Your task to perform on an android device: turn on the 12-hour format for clock Image 0: 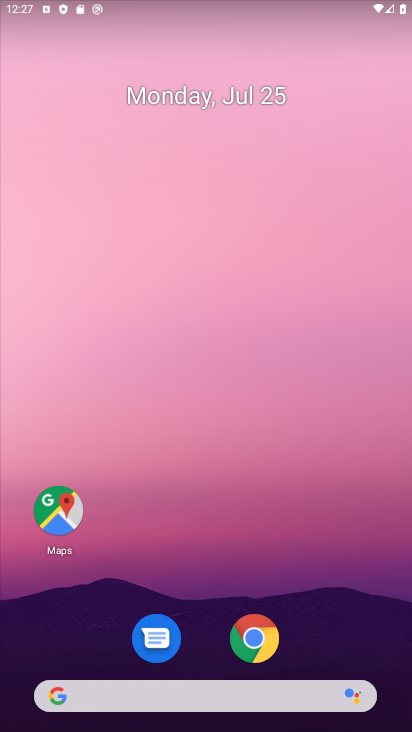
Step 0: drag from (210, 655) to (197, 188)
Your task to perform on an android device: turn on the 12-hour format for clock Image 1: 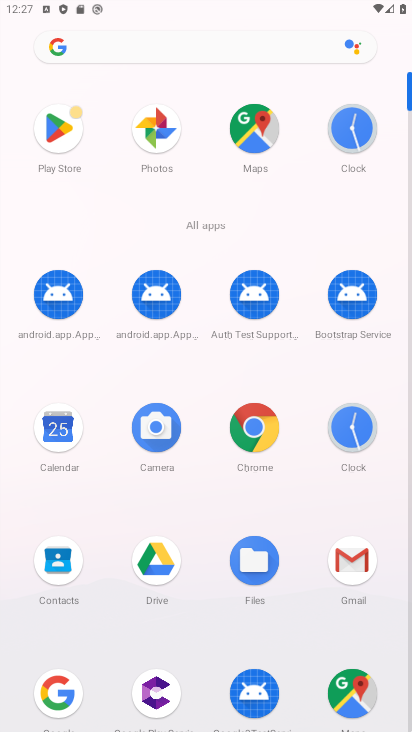
Step 1: click (352, 419)
Your task to perform on an android device: turn on the 12-hour format for clock Image 2: 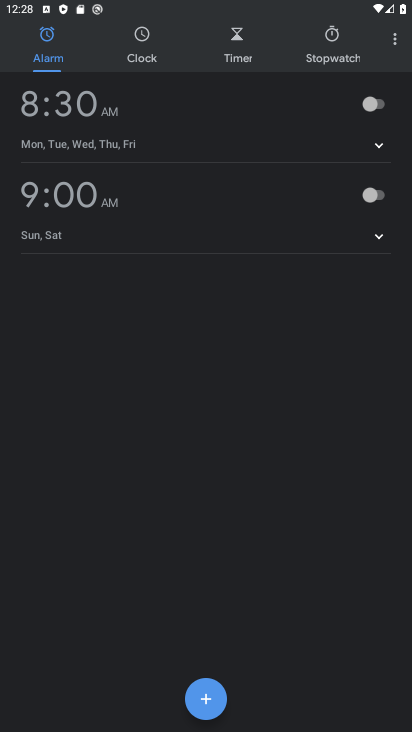
Step 2: task complete